Your task to perform on an android device: check the backup settings in the google photos Image 0: 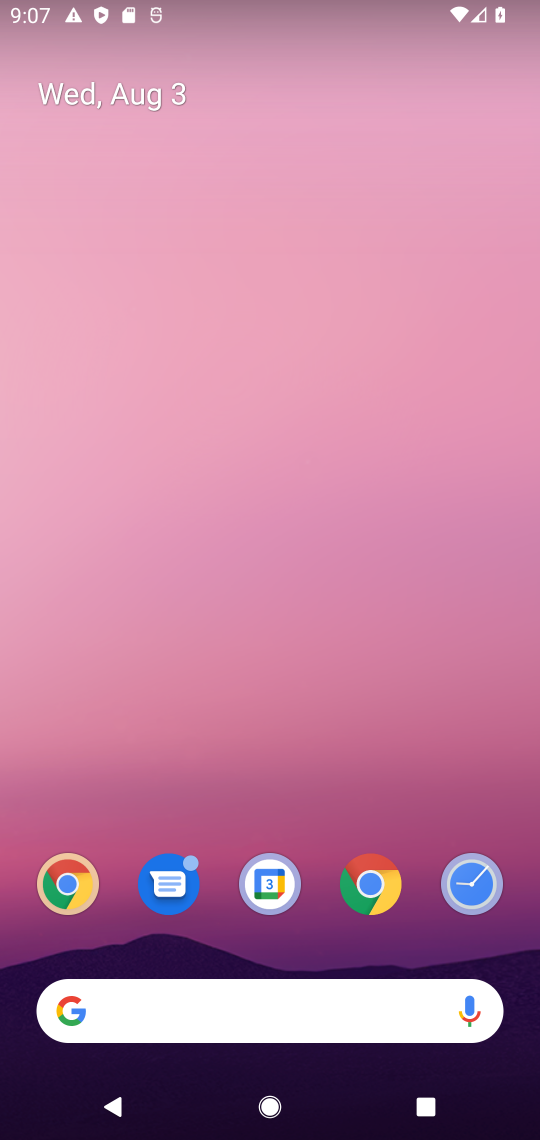
Step 0: press home button
Your task to perform on an android device: check the backup settings in the google photos Image 1: 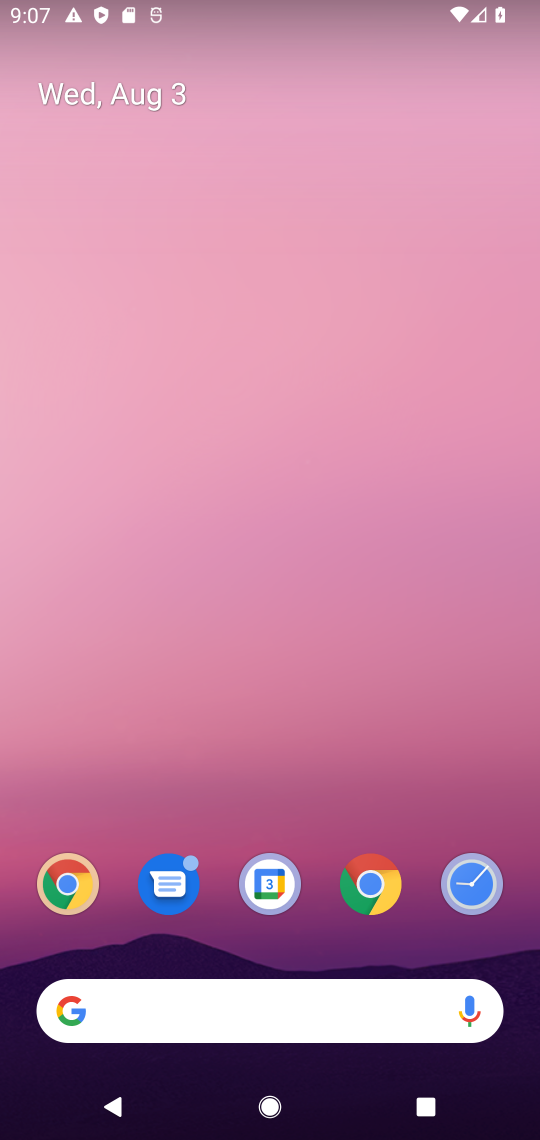
Step 1: drag from (315, 969) to (369, 28)
Your task to perform on an android device: check the backup settings in the google photos Image 2: 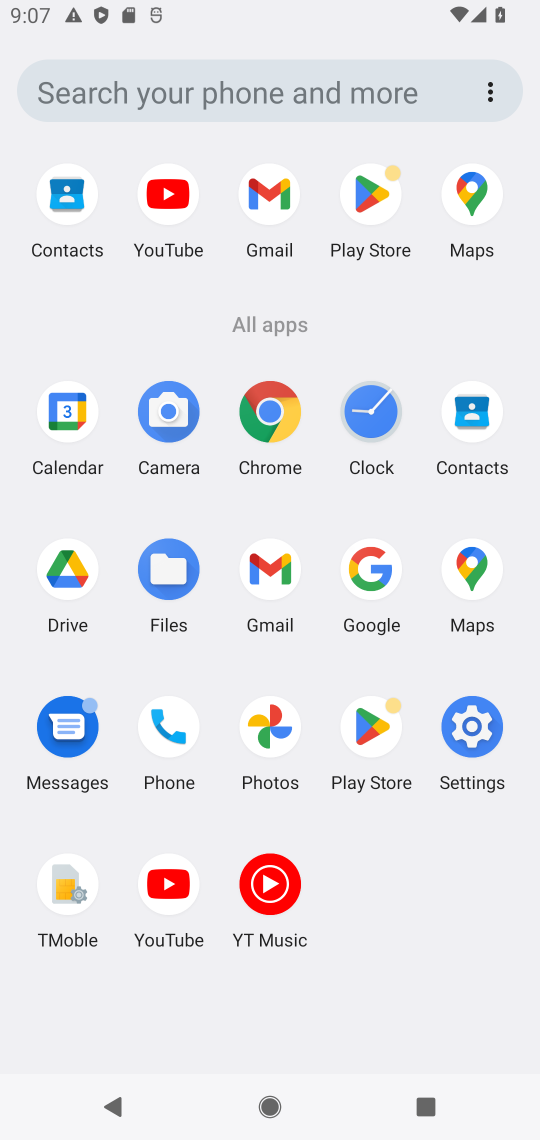
Step 2: click (261, 744)
Your task to perform on an android device: check the backup settings in the google photos Image 3: 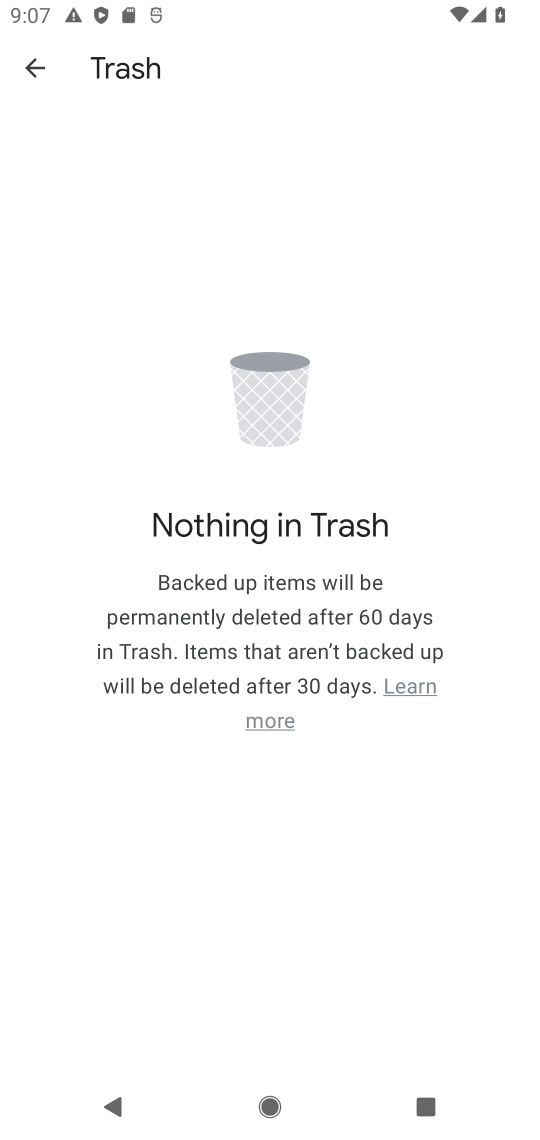
Step 3: click (38, 9)
Your task to perform on an android device: check the backup settings in the google photos Image 4: 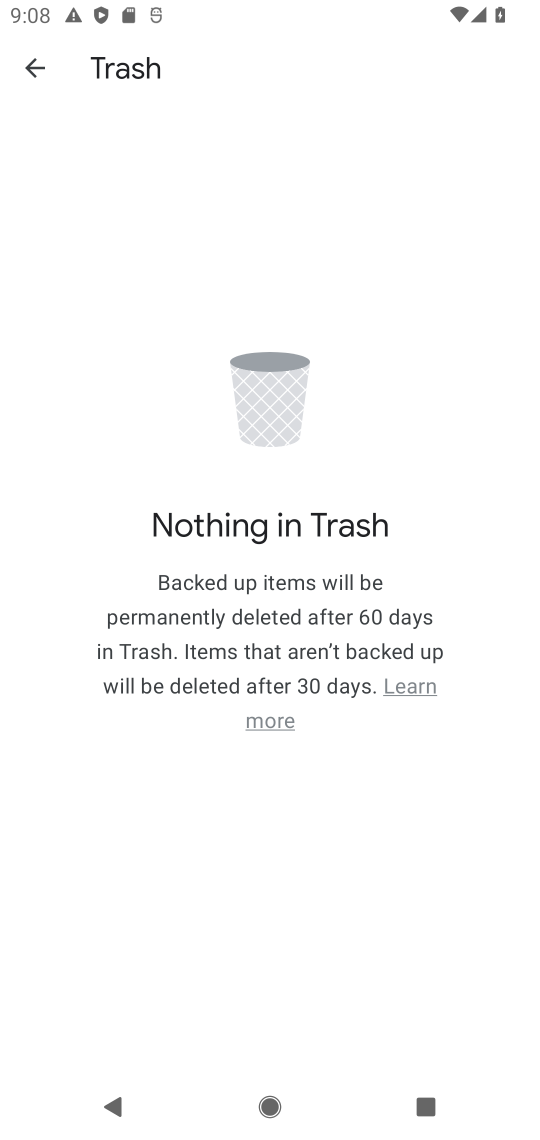
Step 4: click (21, 67)
Your task to perform on an android device: check the backup settings in the google photos Image 5: 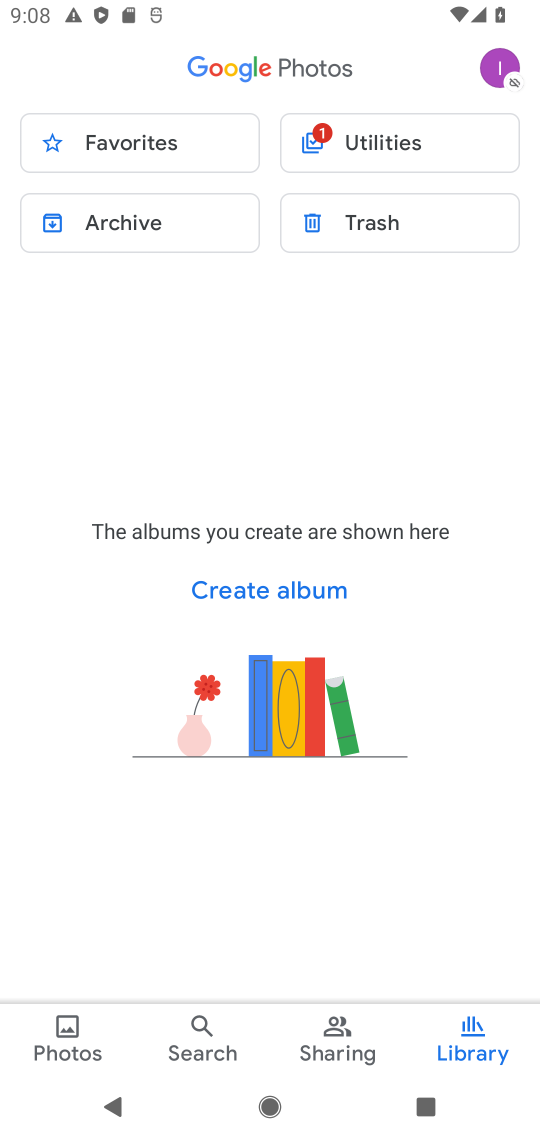
Step 5: click (515, 78)
Your task to perform on an android device: check the backup settings in the google photos Image 6: 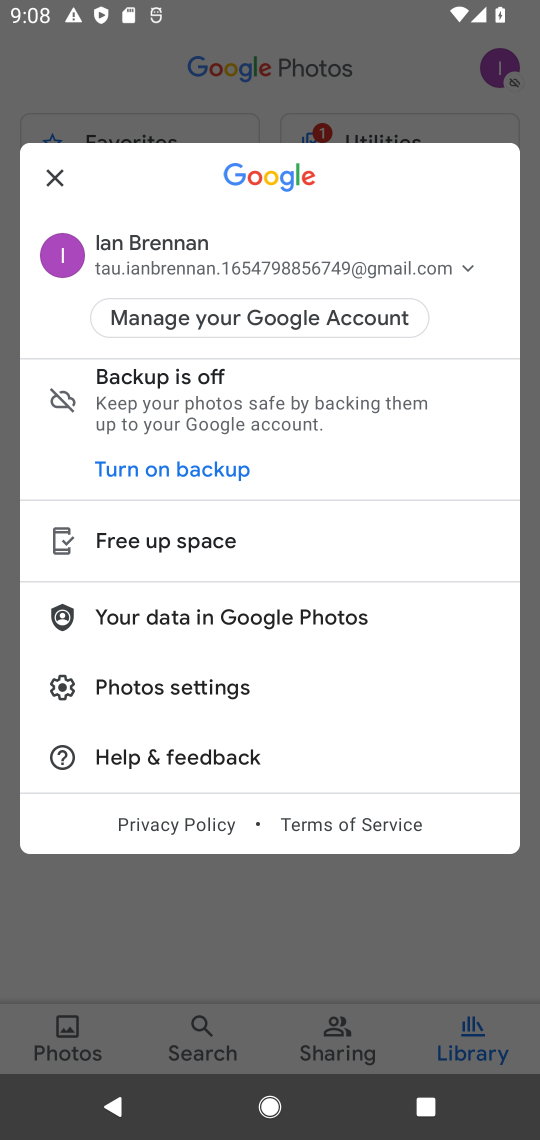
Step 6: click (126, 694)
Your task to perform on an android device: check the backup settings in the google photos Image 7: 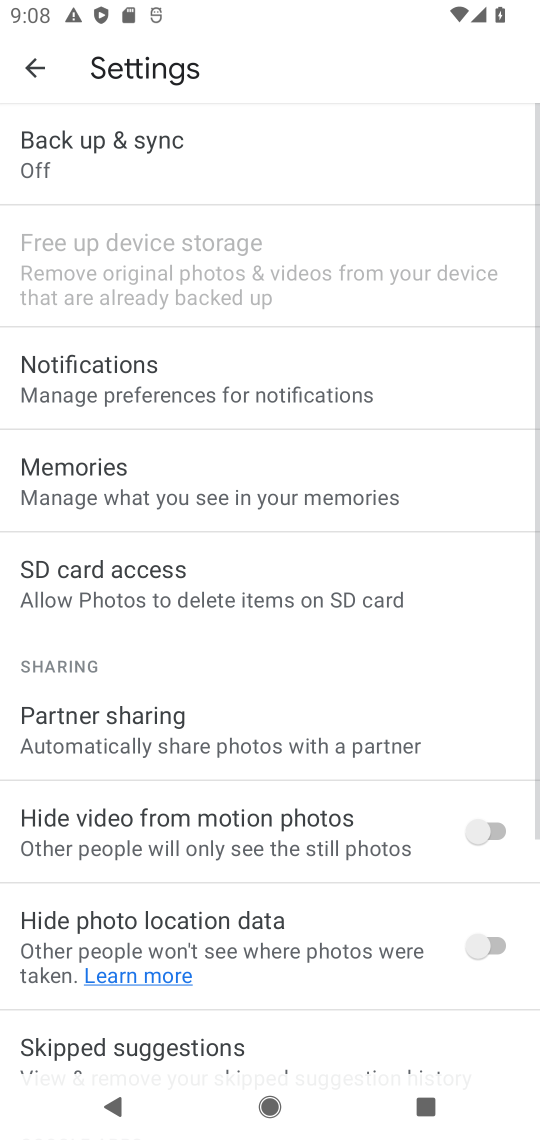
Step 7: click (144, 197)
Your task to perform on an android device: check the backup settings in the google photos Image 8: 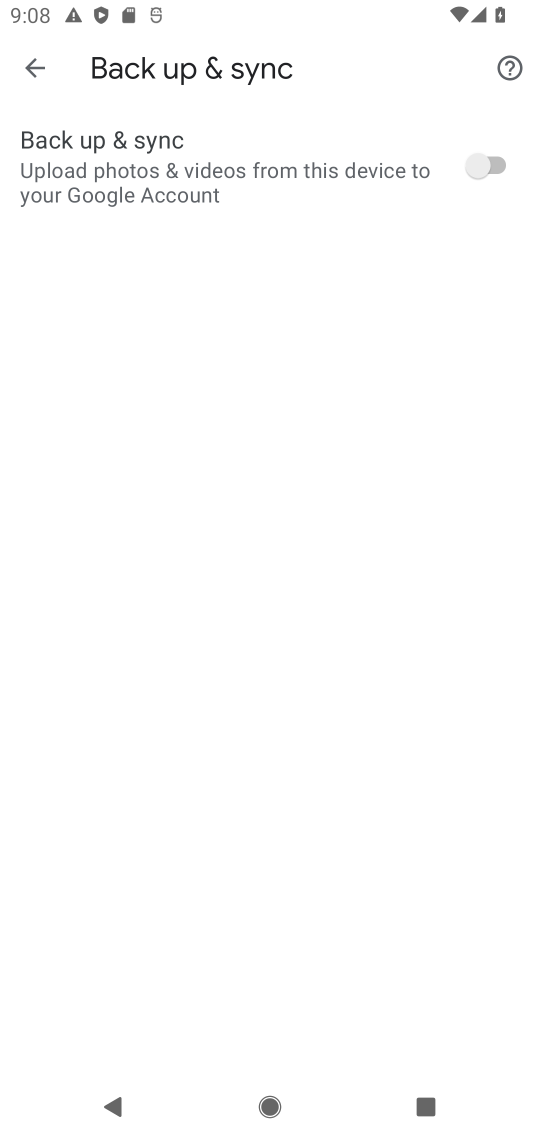
Step 8: task complete